Your task to perform on an android device: snooze an email in the gmail app Image 0: 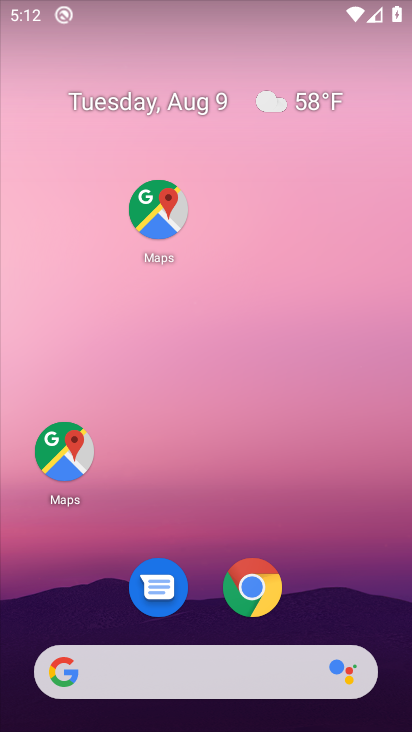
Step 0: drag from (156, 505) to (146, 57)
Your task to perform on an android device: snooze an email in the gmail app Image 1: 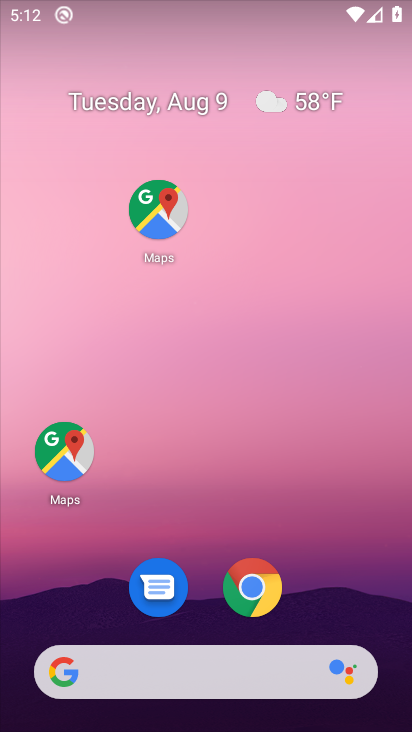
Step 1: drag from (199, 441) to (218, 131)
Your task to perform on an android device: snooze an email in the gmail app Image 2: 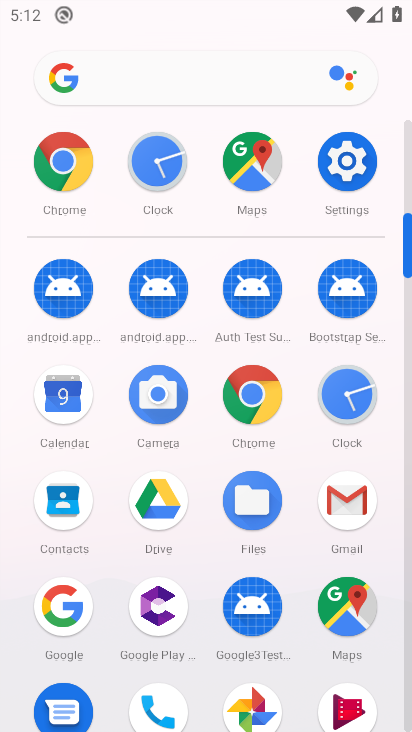
Step 2: click (363, 481)
Your task to perform on an android device: snooze an email in the gmail app Image 3: 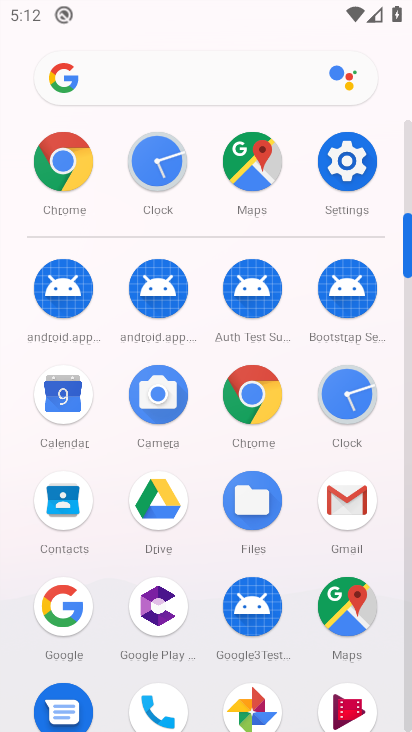
Step 3: click (357, 485)
Your task to perform on an android device: snooze an email in the gmail app Image 4: 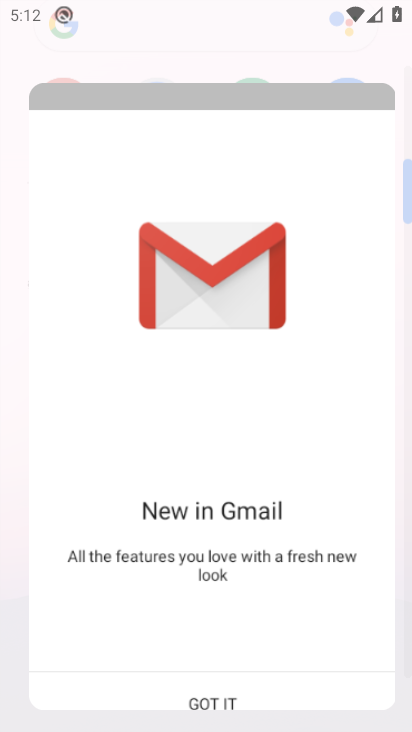
Step 4: click (356, 486)
Your task to perform on an android device: snooze an email in the gmail app Image 5: 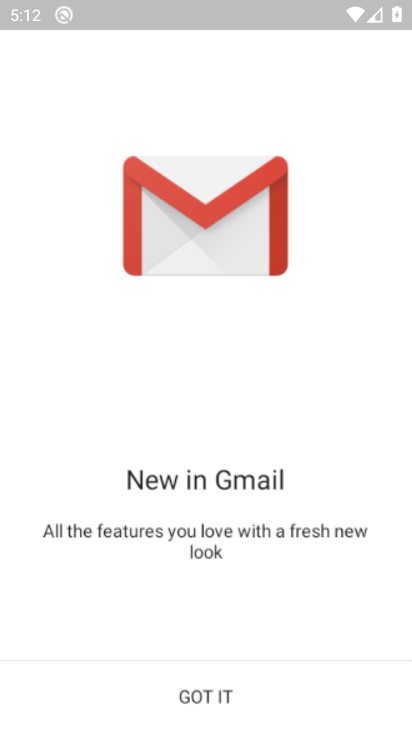
Step 5: click (356, 486)
Your task to perform on an android device: snooze an email in the gmail app Image 6: 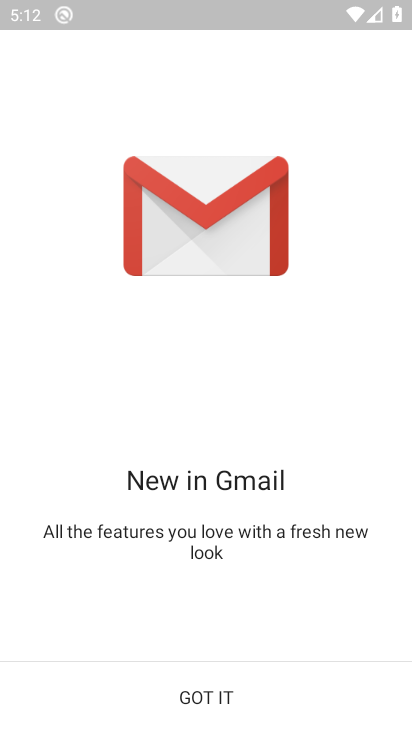
Step 6: click (222, 710)
Your task to perform on an android device: snooze an email in the gmail app Image 7: 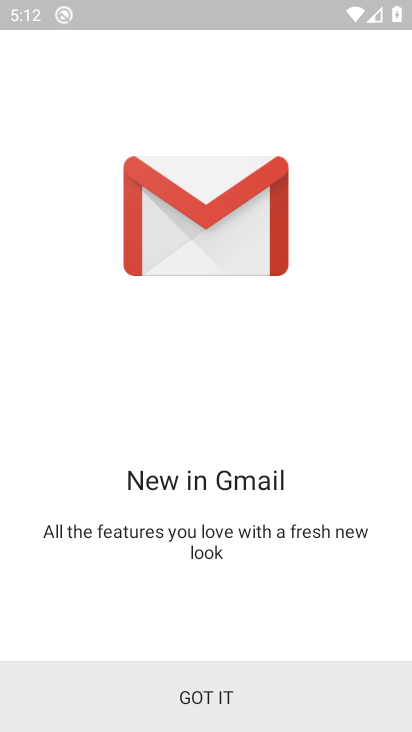
Step 7: click (222, 706)
Your task to perform on an android device: snooze an email in the gmail app Image 8: 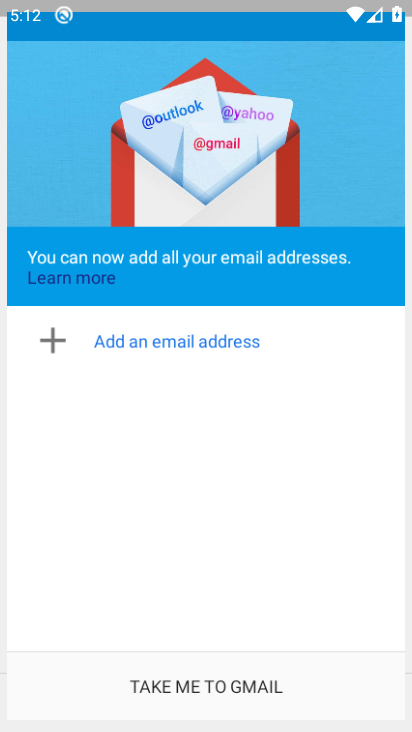
Step 8: click (223, 705)
Your task to perform on an android device: snooze an email in the gmail app Image 9: 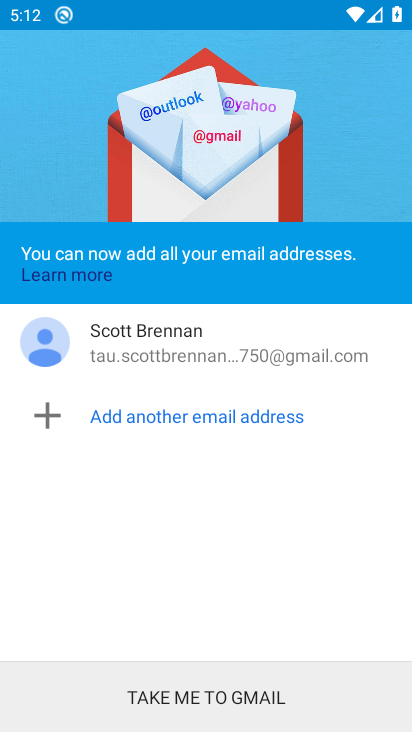
Step 9: click (218, 705)
Your task to perform on an android device: snooze an email in the gmail app Image 10: 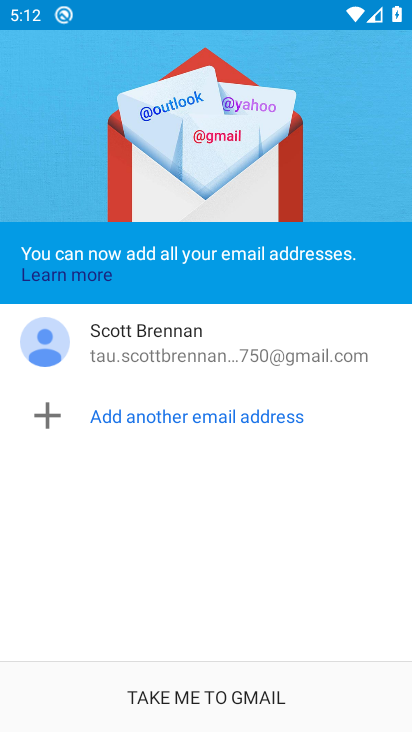
Step 10: click (220, 701)
Your task to perform on an android device: snooze an email in the gmail app Image 11: 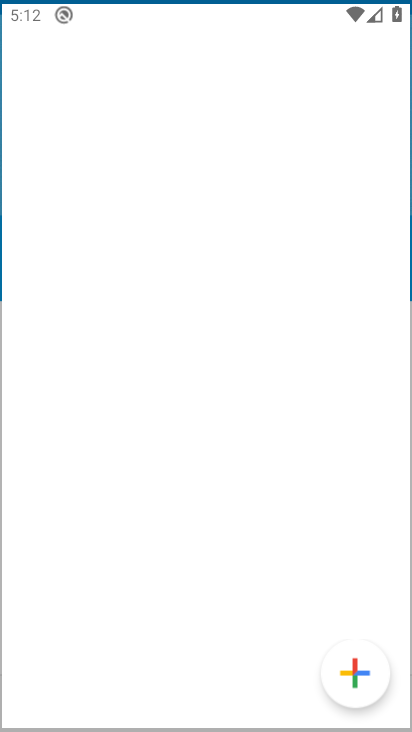
Step 11: click (231, 697)
Your task to perform on an android device: snooze an email in the gmail app Image 12: 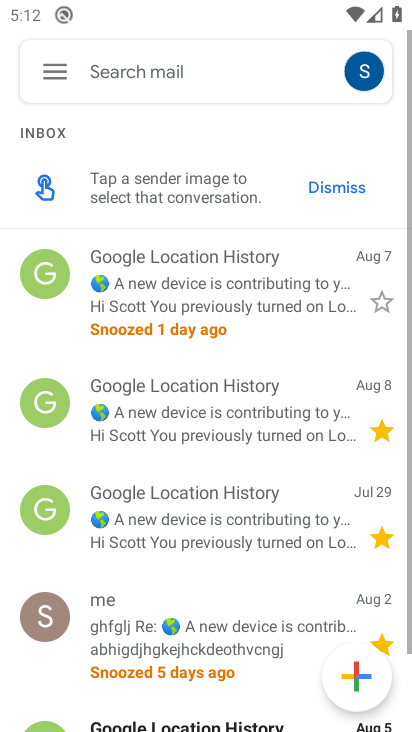
Step 12: click (190, 447)
Your task to perform on an android device: snooze an email in the gmail app Image 13: 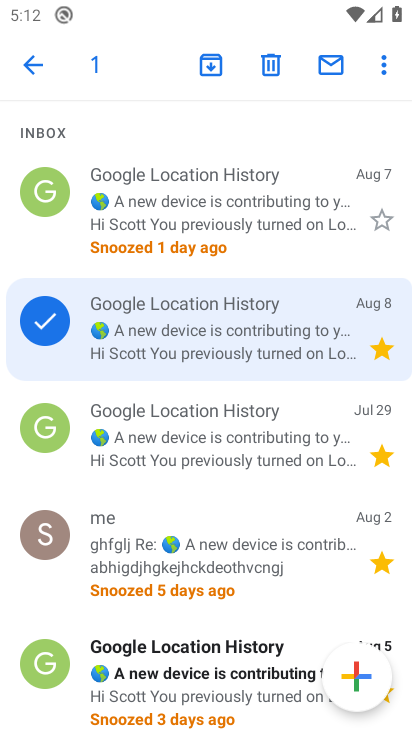
Step 13: click (381, 48)
Your task to perform on an android device: snooze an email in the gmail app Image 14: 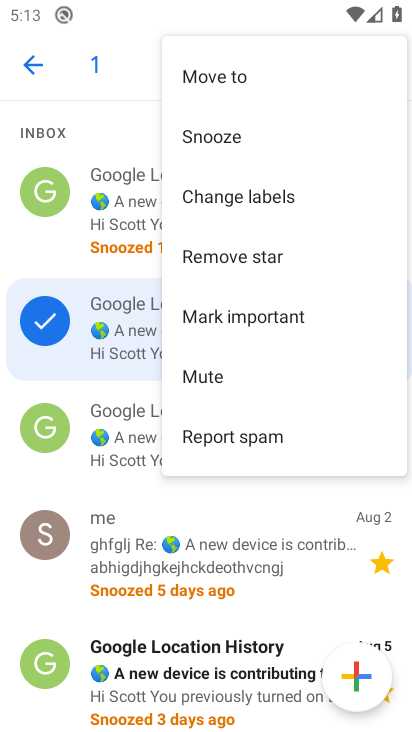
Step 14: click (216, 133)
Your task to perform on an android device: snooze an email in the gmail app Image 15: 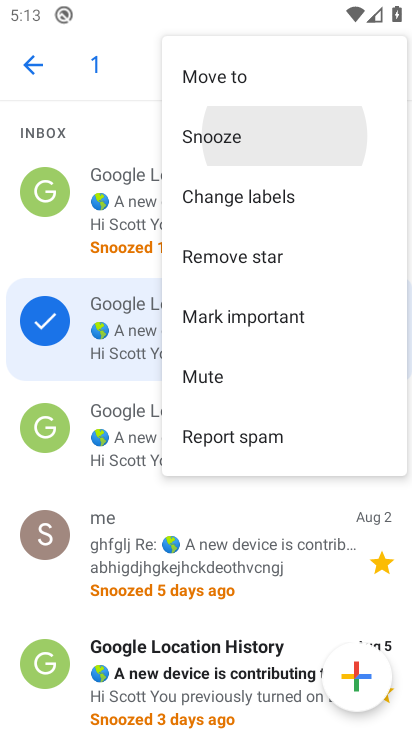
Step 15: click (216, 133)
Your task to perform on an android device: snooze an email in the gmail app Image 16: 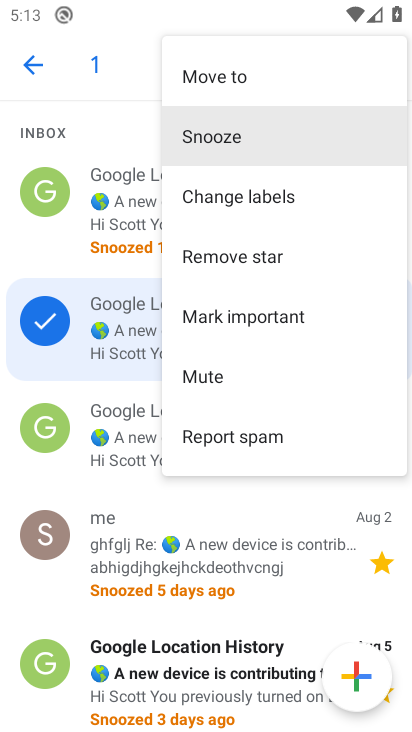
Step 16: click (216, 133)
Your task to perform on an android device: snooze an email in the gmail app Image 17: 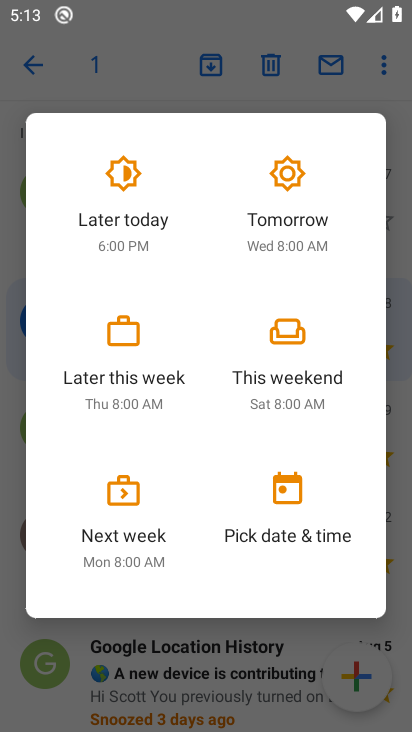
Step 17: click (276, 215)
Your task to perform on an android device: snooze an email in the gmail app Image 18: 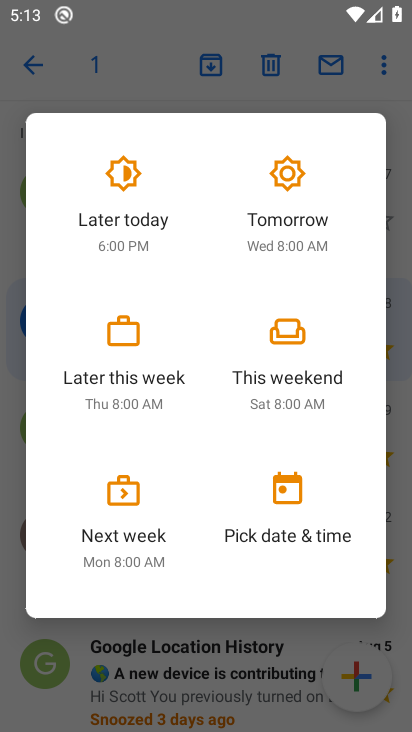
Step 18: click (277, 216)
Your task to perform on an android device: snooze an email in the gmail app Image 19: 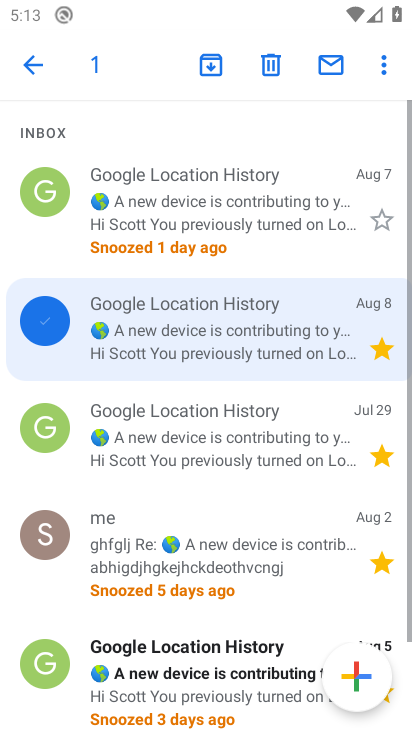
Step 19: click (277, 216)
Your task to perform on an android device: snooze an email in the gmail app Image 20: 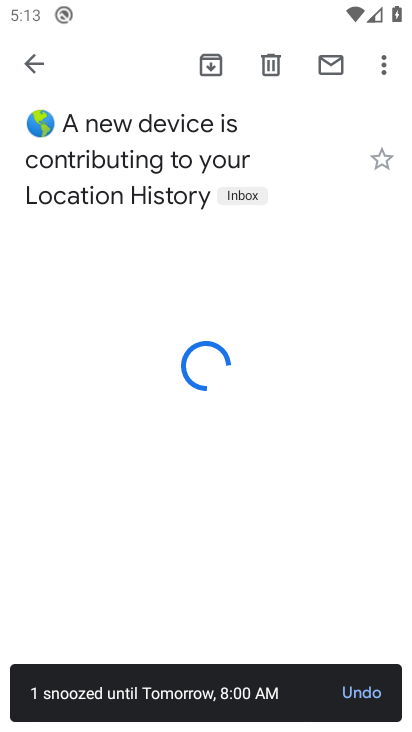
Step 20: task complete